Your task to perform on an android device: What's the weather going to be this weekend? Image 0: 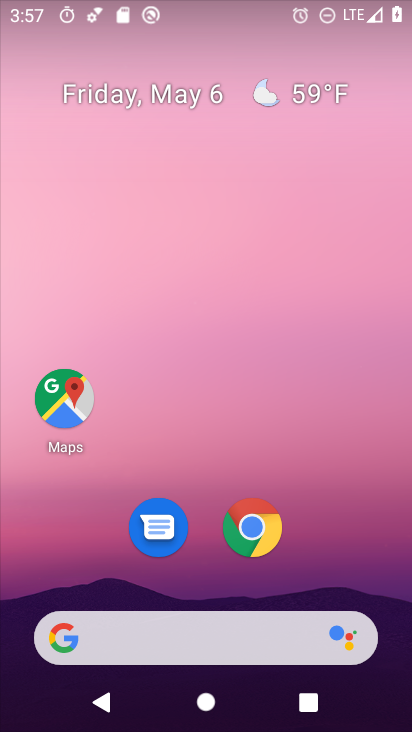
Step 0: drag from (347, 505) to (335, 92)
Your task to perform on an android device: What's the weather going to be this weekend? Image 1: 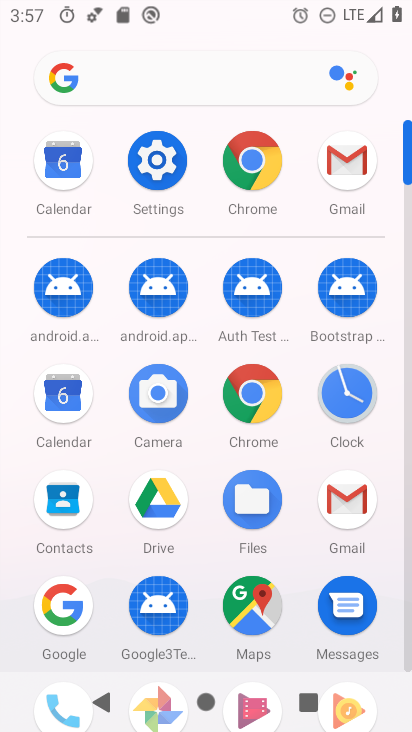
Step 1: drag from (55, 397) to (78, 449)
Your task to perform on an android device: What's the weather going to be this weekend? Image 2: 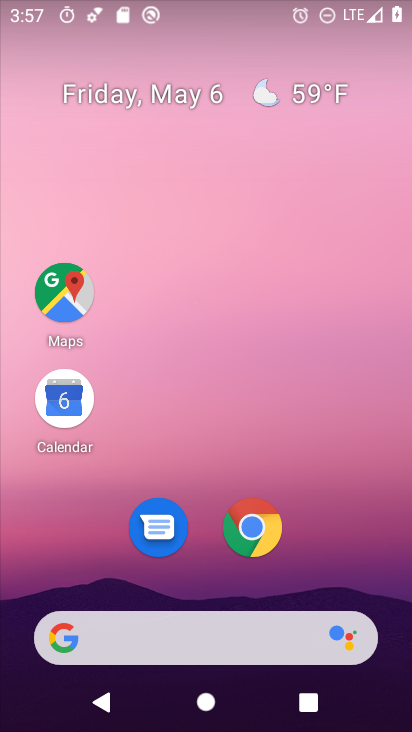
Step 2: click (291, 89)
Your task to perform on an android device: What's the weather going to be this weekend? Image 3: 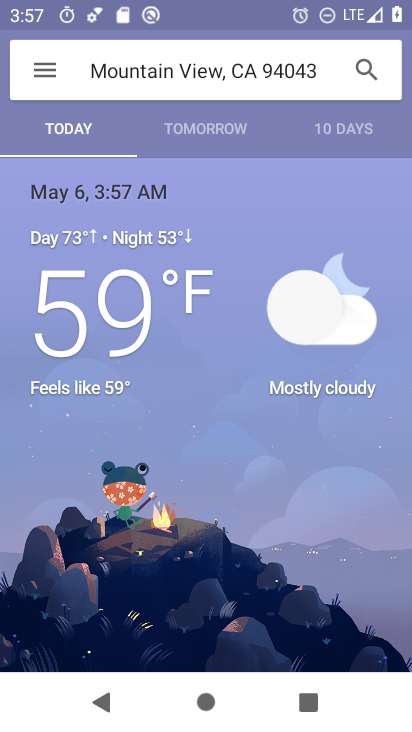
Step 3: click (320, 118)
Your task to perform on an android device: What's the weather going to be this weekend? Image 4: 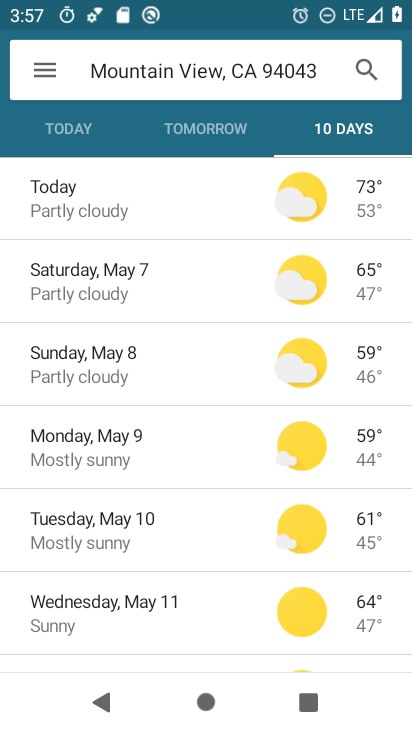
Step 4: task complete